Your task to perform on an android device: Show me productivity apps on the Play Store Image 0: 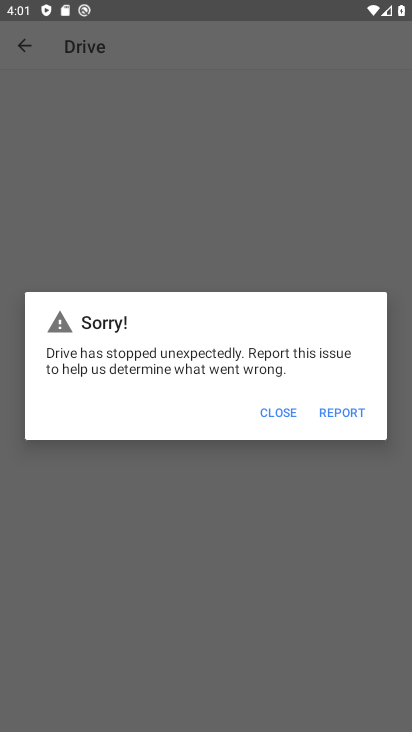
Step 0: click (280, 417)
Your task to perform on an android device: Show me productivity apps on the Play Store Image 1: 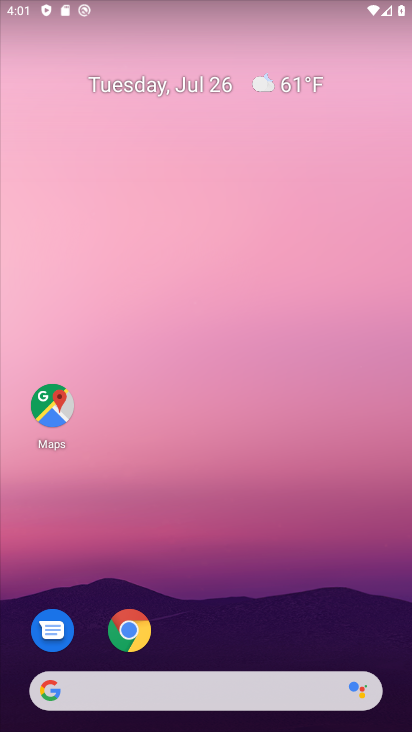
Step 1: drag from (210, 589) to (171, 156)
Your task to perform on an android device: Show me productivity apps on the Play Store Image 2: 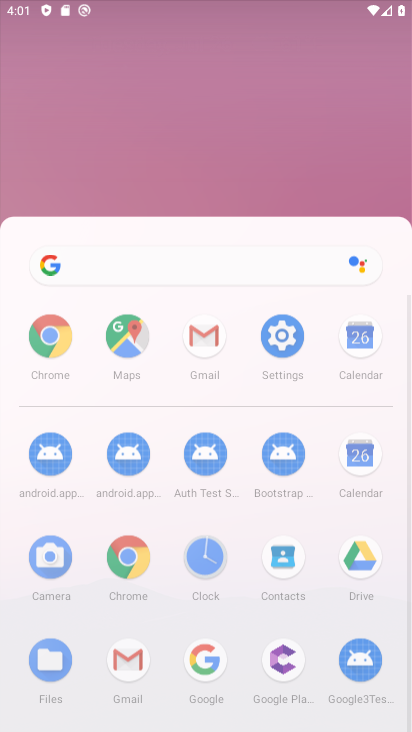
Step 2: drag from (202, 435) to (183, 147)
Your task to perform on an android device: Show me productivity apps on the Play Store Image 3: 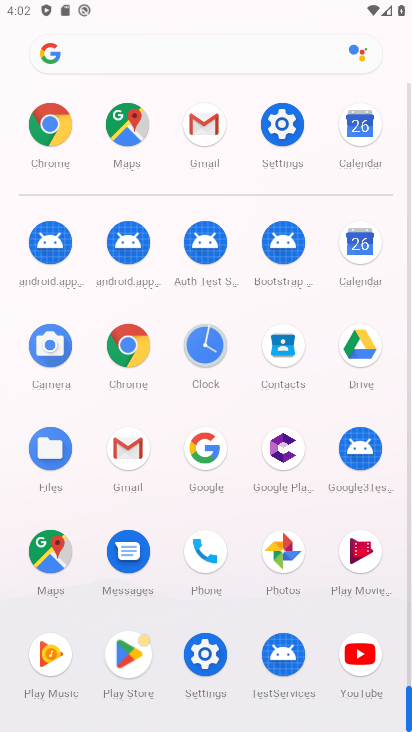
Step 3: click (120, 649)
Your task to perform on an android device: Show me productivity apps on the Play Store Image 4: 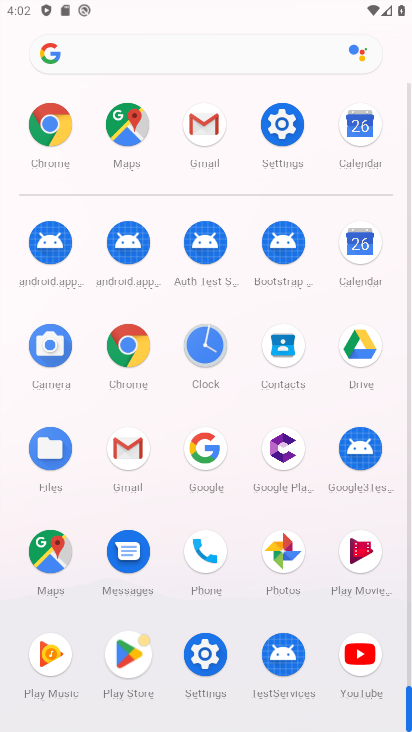
Step 4: click (120, 649)
Your task to perform on an android device: Show me productivity apps on the Play Store Image 5: 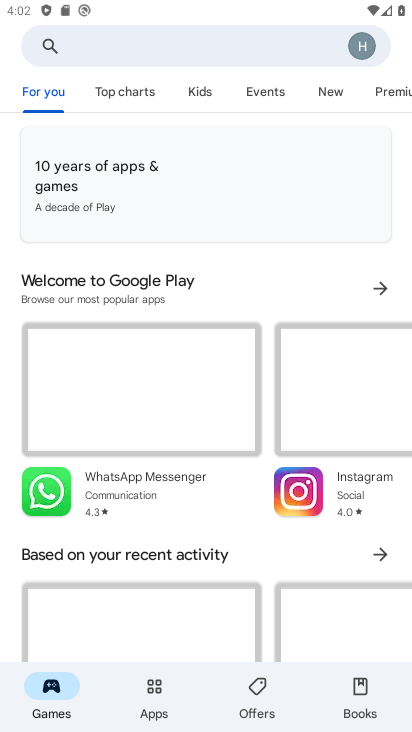
Step 5: click (217, 55)
Your task to perform on an android device: Show me productivity apps on the Play Store Image 6: 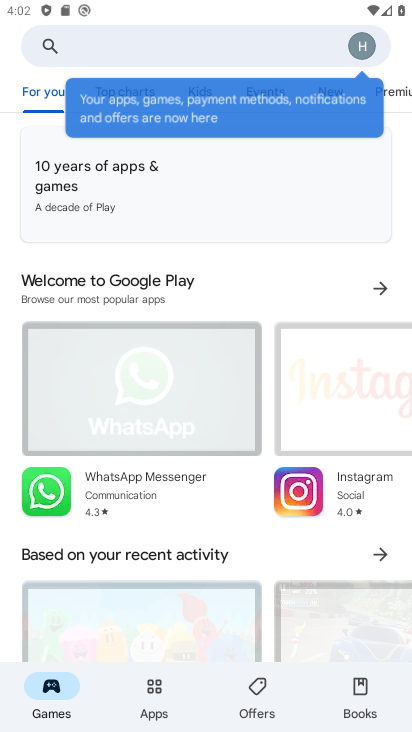
Step 6: click (216, 55)
Your task to perform on an android device: Show me productivity apps on the Play Store Image 7: 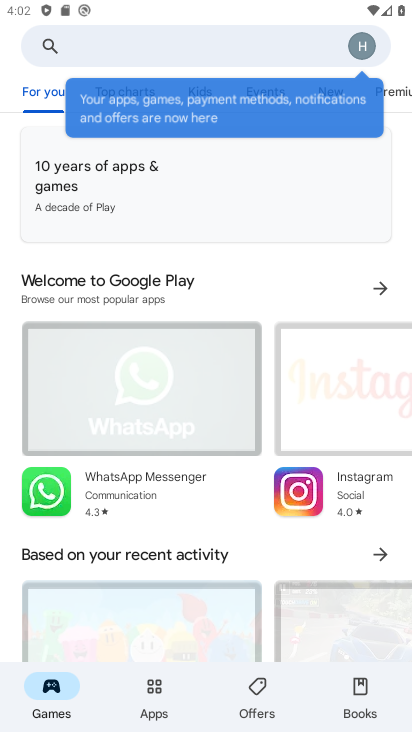
Step 7: click (217, 56)
Your task to perform on an android device: Show me productivity apps on the Play Store Image 8: 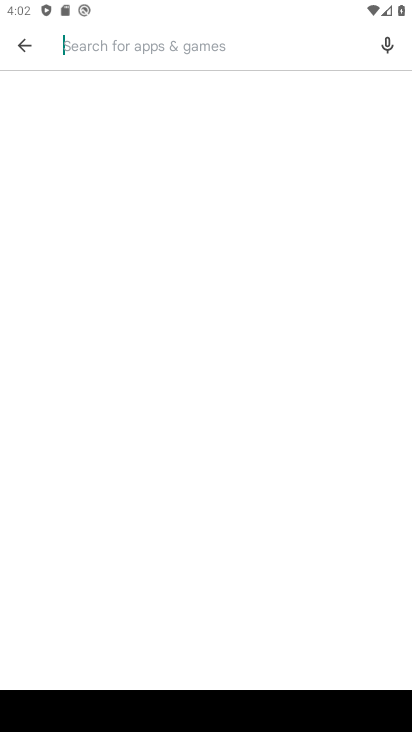
Step 8: type "productivity apps"
Your task to perform on an android device: Show me productivity apps on the Play Store Image 9: 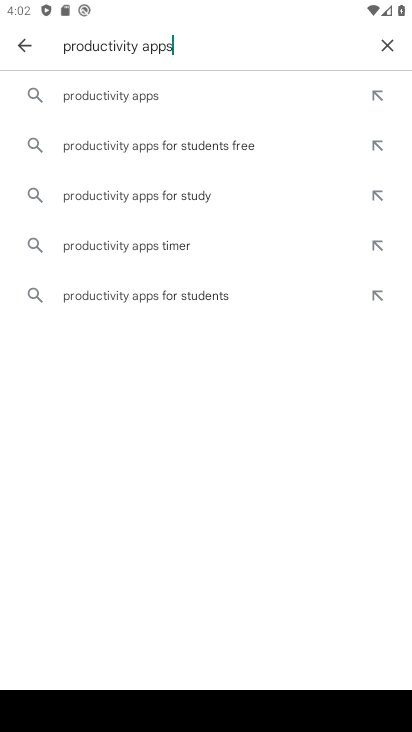
Step 9: click (135, 102)
Your task to perform on an android device: Show me productivity apps on the Play Store Image 10: 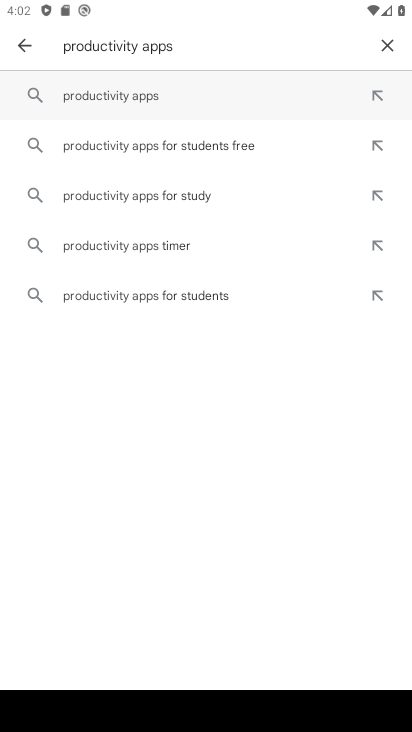
Step 10: click (135, 102)
Your task to perform on an android device: Show me productivity apps on the Play Store Image 11: 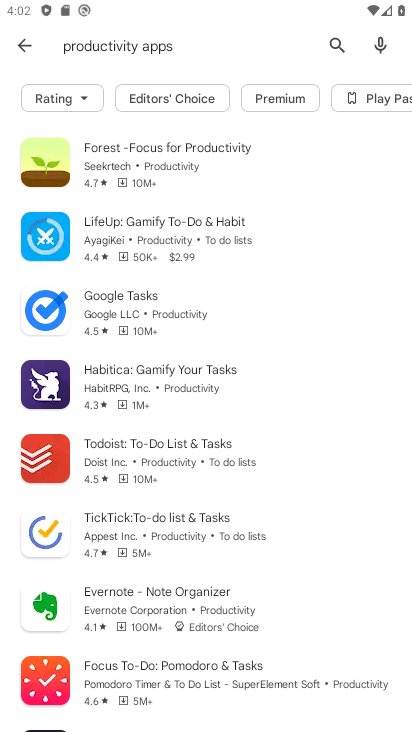
Step 11: task complete